Your task to perform on an android device: turn on improve location accuracy Image 0: 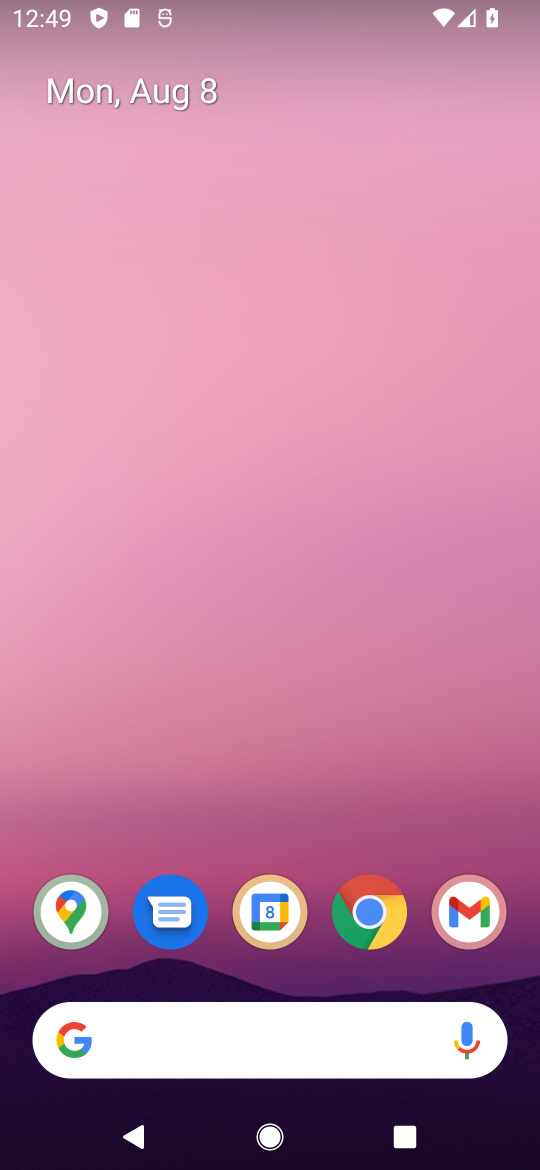
Step 0: drag from (230, 745) to (174, 25)
Your task to perform on an android device: turn on improve location accuracy Image 1: 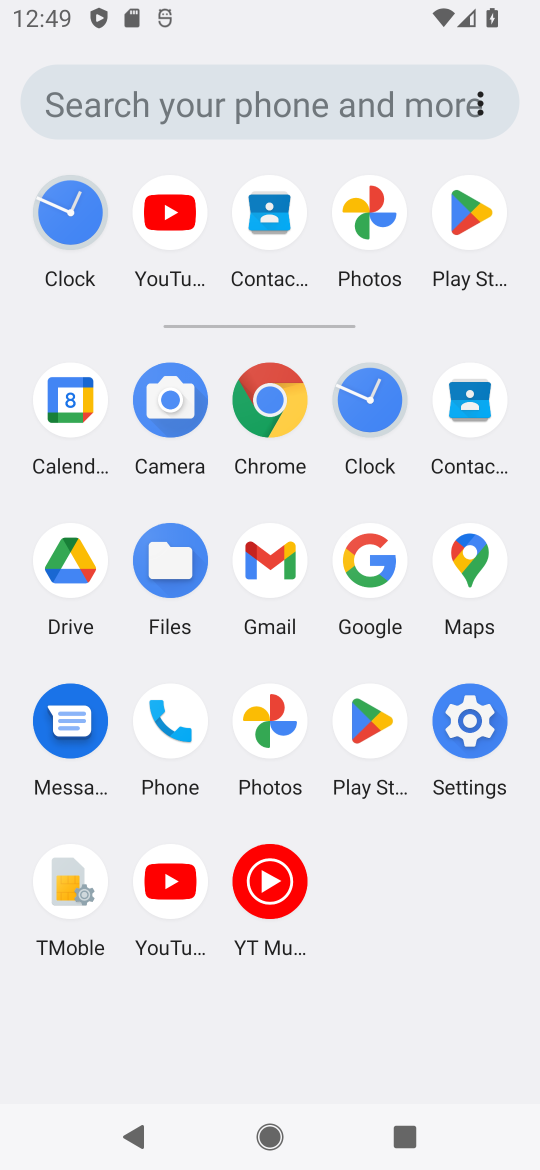
Step 1: click (472, 698)
Your task to perform on an android device: turn on improve location accuracy Image 2: 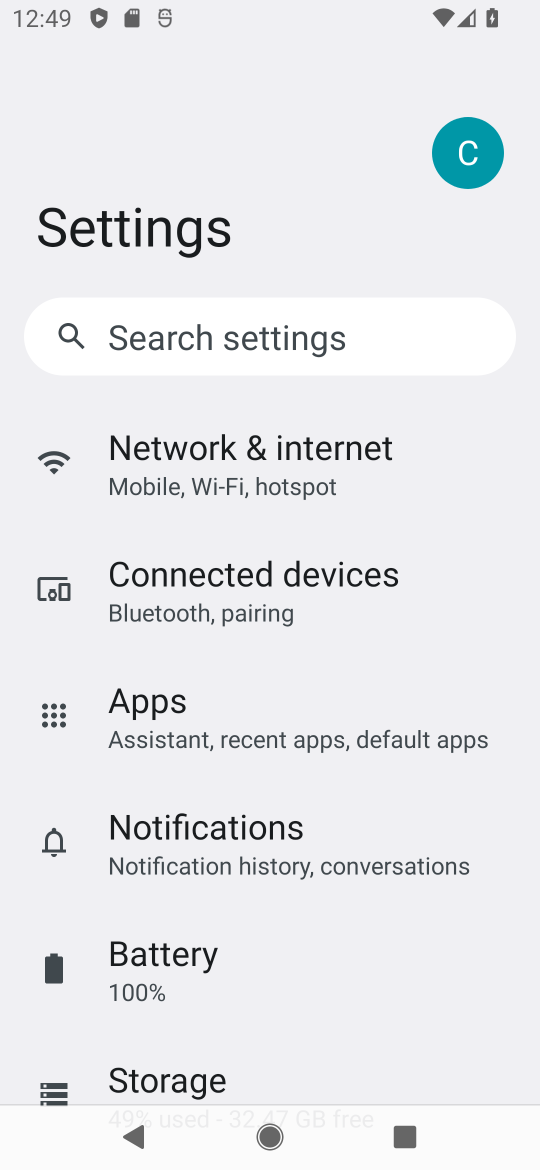
Step 2: drag from (281, 980) to (427, 150)
Your task to perform on an android device: turn on improve location accuracy Image 3: 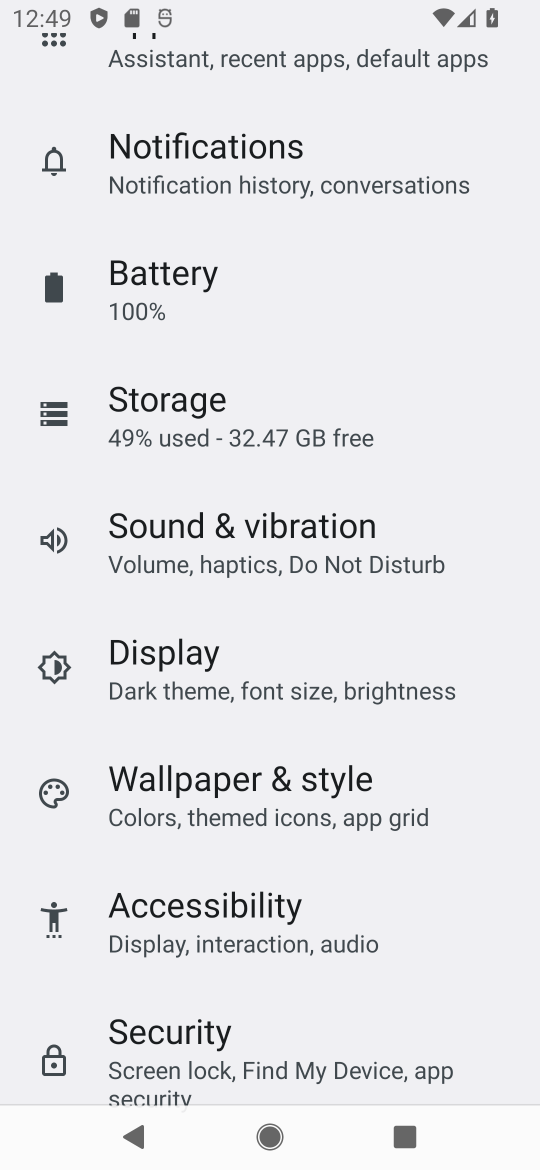
Step 3: drag from (245, 994) to (349, 341)
Your task to perform on an android device: turn on improve location accuracy Image 4: 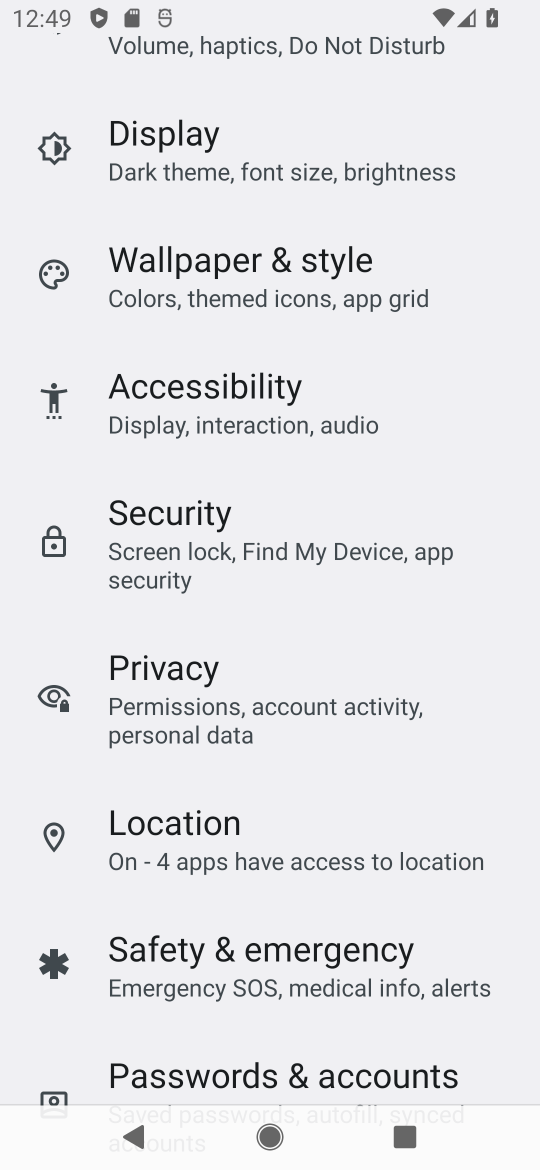
Step 4: click (243, 843)
Your task to perform on an android device: turn on improve location accuracy Image 5: 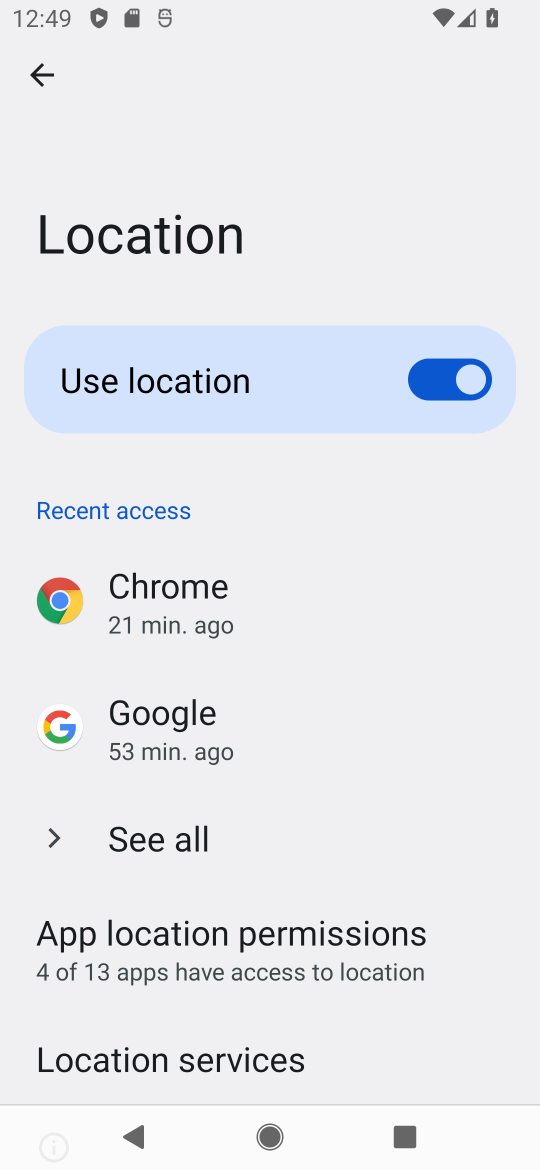
Step 5: click (167, 1073)
Your task to perform on an android device: turn on improve location accuracy Image 6: 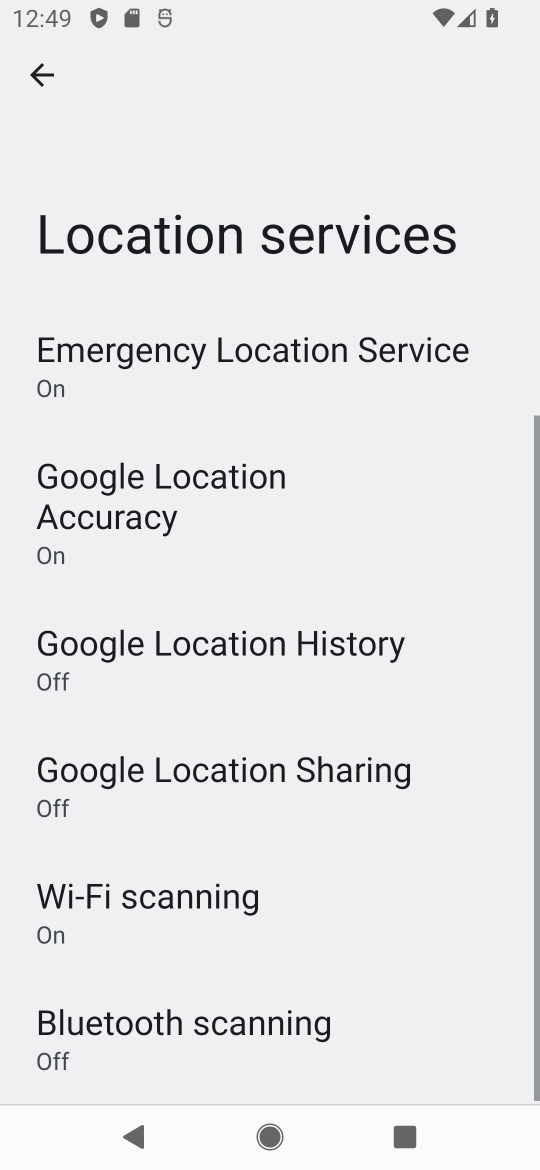
Step 6: click (178, 505)
Your task to perform on an android device: turn on improve location accuracy Image 7: 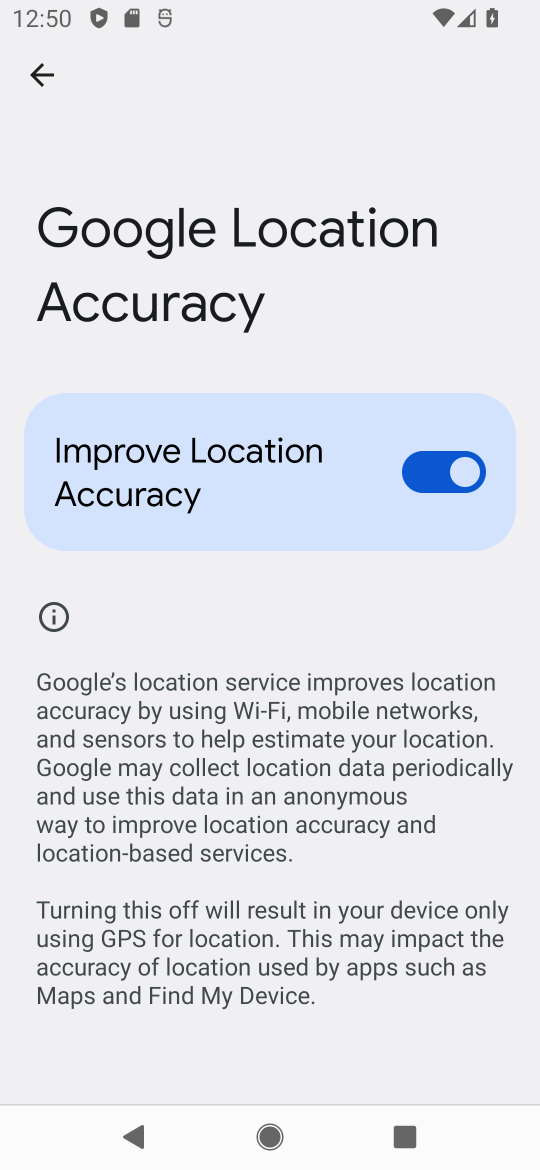
Step 7: task complete